Your task to perform on an android device: turn on bluetooth scan Image 0: 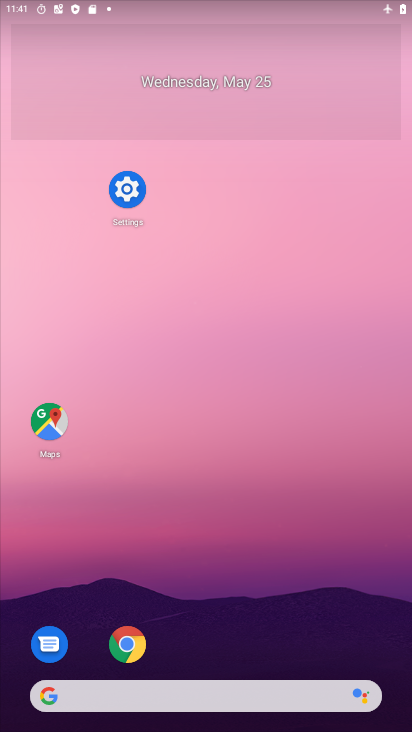
Step 0: drag from (248, 609) to (233, 125)
Your task to perform on an android device: turn on bluetooth scan Image 1: 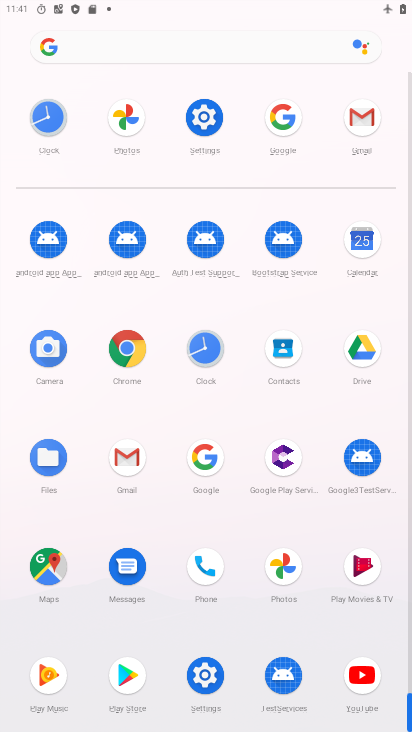
Step 1: click (204, 123)
Your task to perform on an android device: turn on bluetooth scan Image 2: 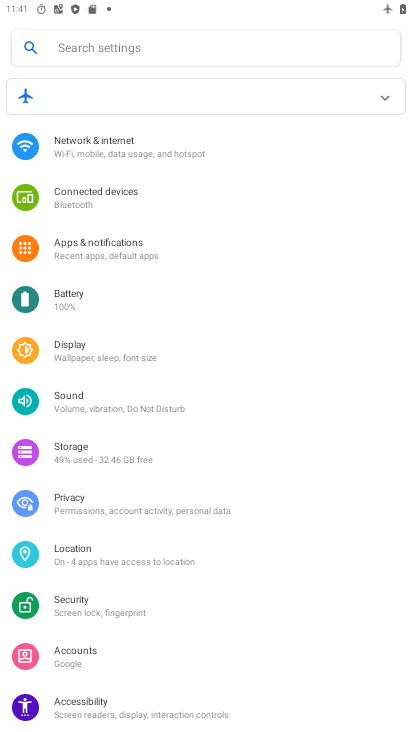
Step 2: drag from (199, 536) to (194, 285)
Your task to perform on an android device: turn on bluetooth scan Image 3: 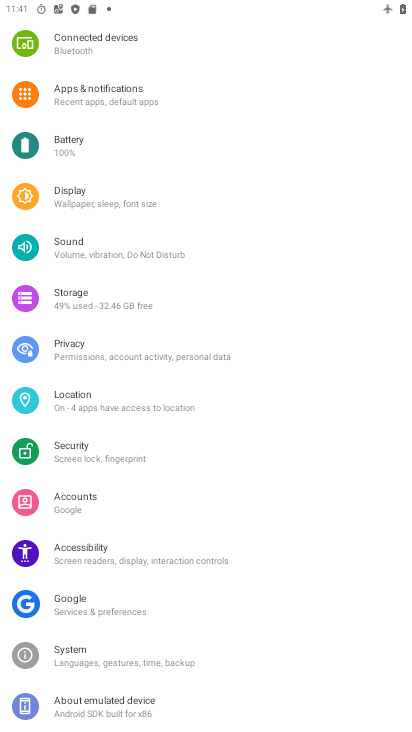
Step 3: click (115, 393)
Your task to perform on an android device: turn on bluetooth scan Image 4: 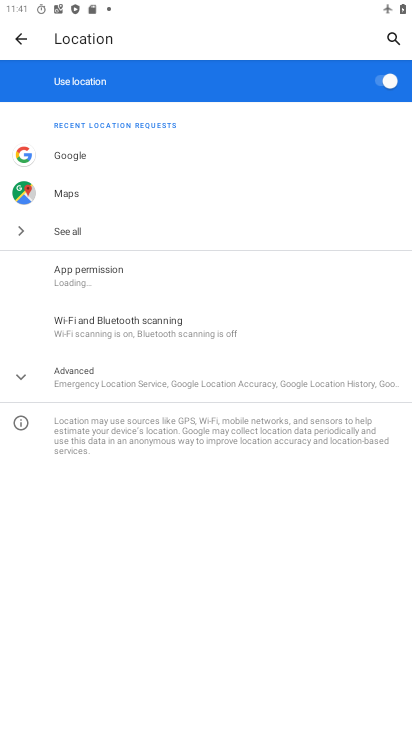
Step 4: click (104, 333)
Your task to perform on an android device: turn on bluetooth scan Image 5: 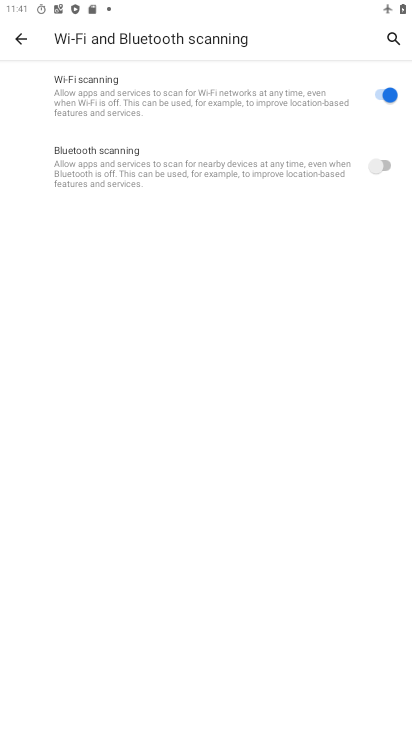
Step 5: click (376, 168)
Your task to perform on an android device: turn on bluetooth scan Image 6: 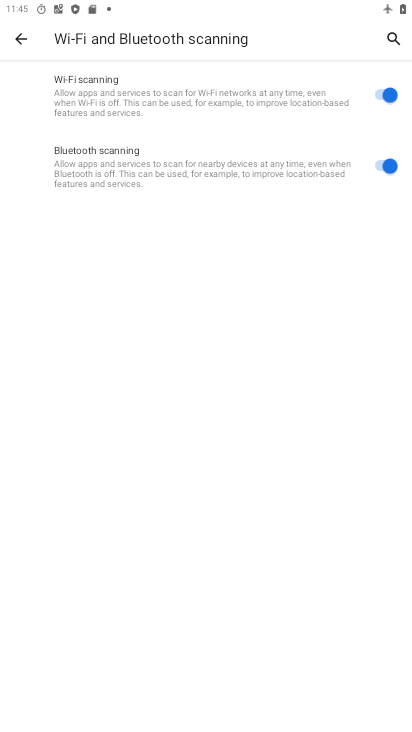
Step 6: task complete